Your task to perform on an android device: turn off smart reply in the gmail app Image 0: 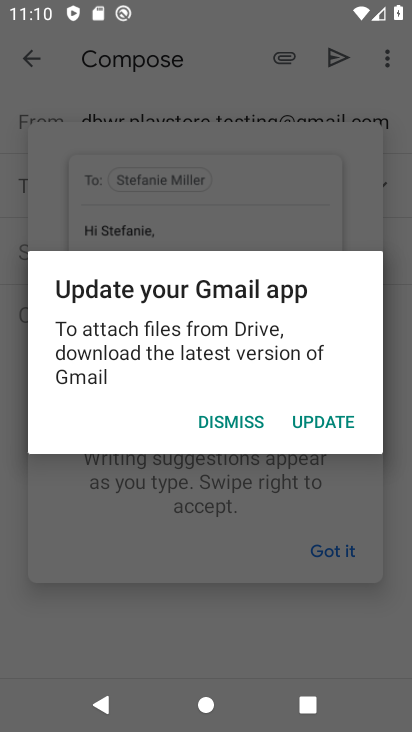
Step 0: press home button
Your task to perform on an android device: turn off smart reply in the gmail app Image 1: 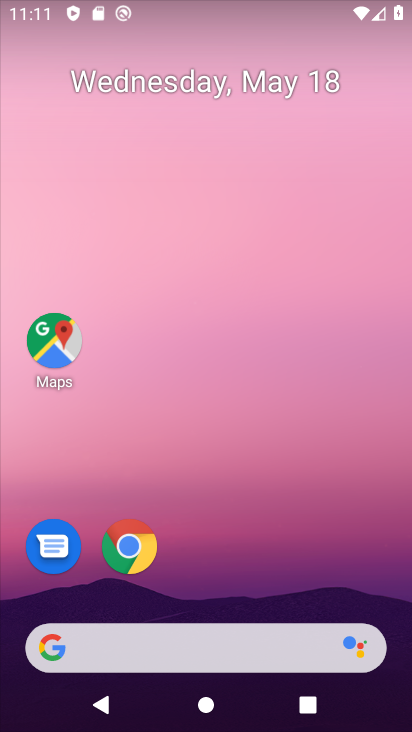
Step 1: drag from (411, 585) to (398, 74)
Your task to perform on an android device: turn off smart reply in the gmail app Image 2: 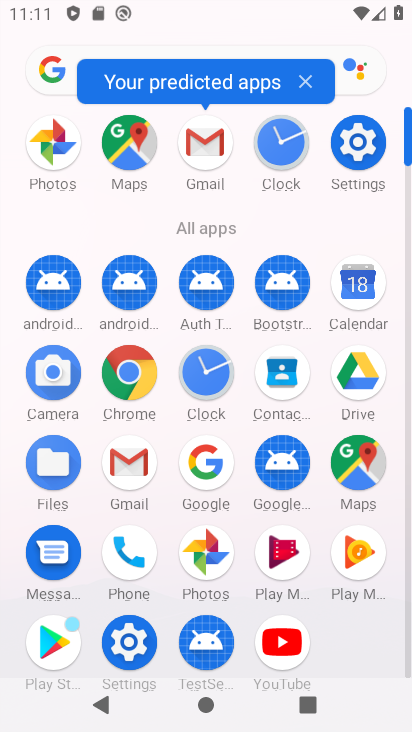
Step 2: click (133, 462)
Your task to perform on an android device: turn off smart reply in the gmail app Image 3: 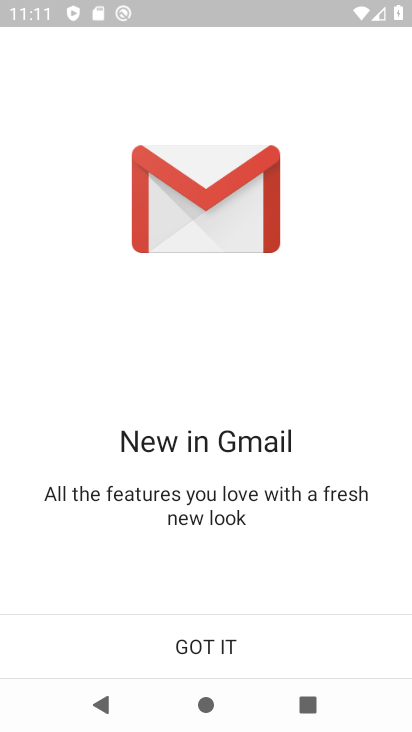
Step 3: click (183, 638)
Your task to perform on an android device: turn off smart reply in the gmail app Image 4: 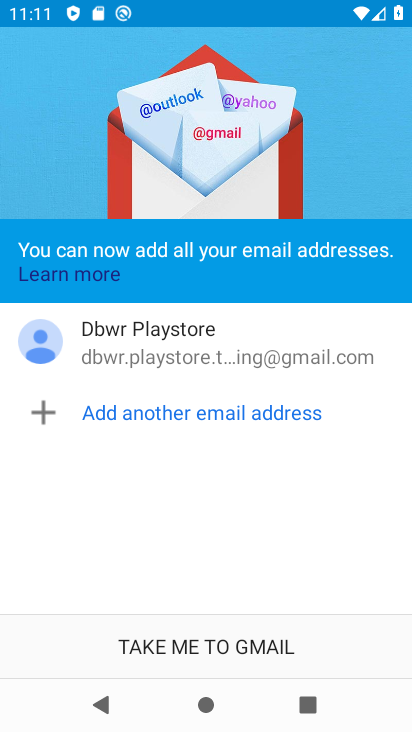
Step 4: click (181, 637)
Your task to perform on an android device: turn off smart reply in the gmail app Image 5: 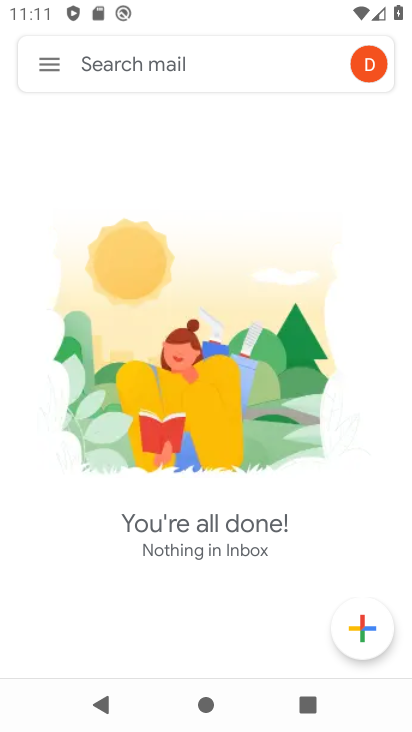
Step 5: click (46, 60)
Your task to perform on an android device: turn off smart reply in the gmail app Image 6: 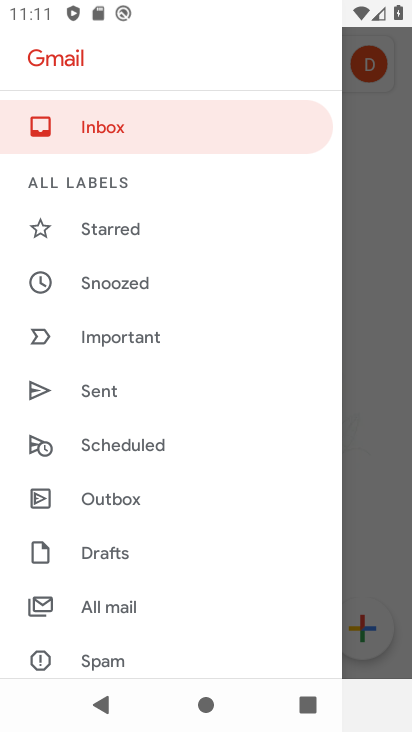
Step 6: drag from (232, 487) to (236, 380)
Your task to perform on an android device: turn off smart reply in the gmail app Image 7: 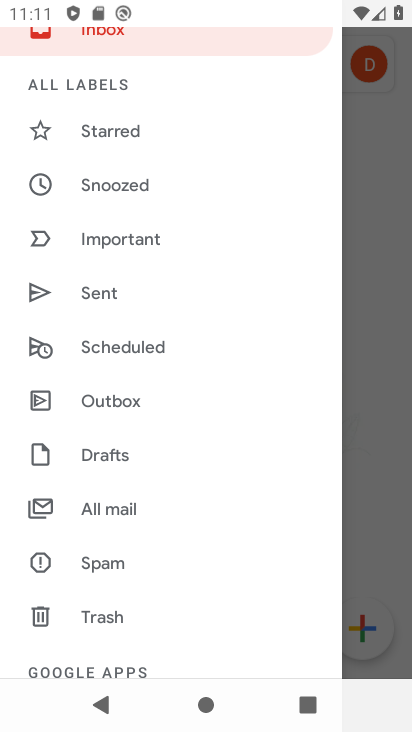
Step 7: drag from (226, 620) to (209, 343)
Your task to perform on an android device: turn off smart reply in the gmail app Image 8: 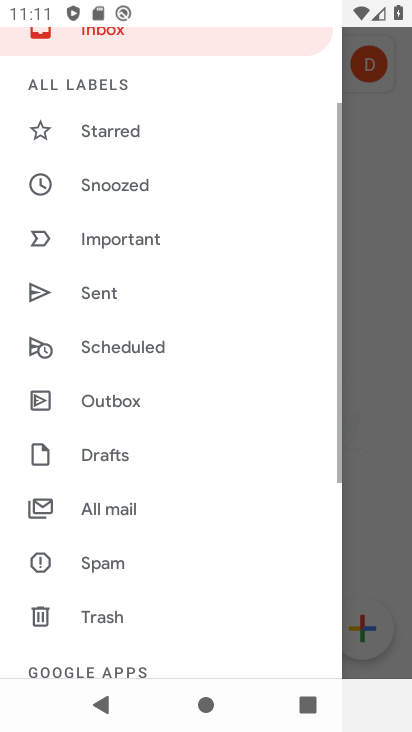
Step 8: drag from (223, 619) to (229, 307)
Your task to perform on an android device: turn off smart reply in the gmail app Image 9: 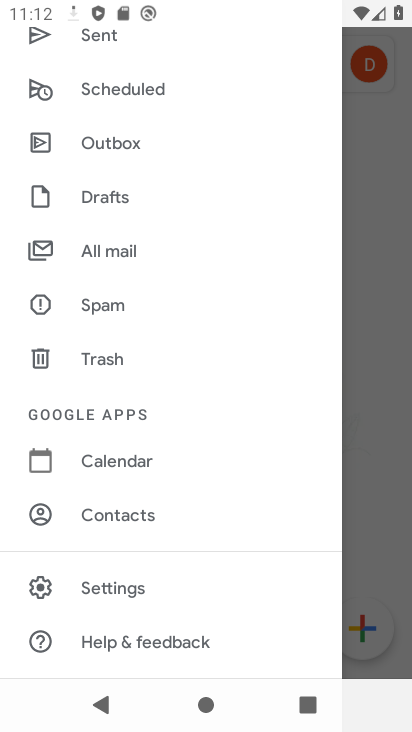
Step 9: click (97, 579)
Your task to perform on an android device: turn off smart reply in the gmail app Image 10: 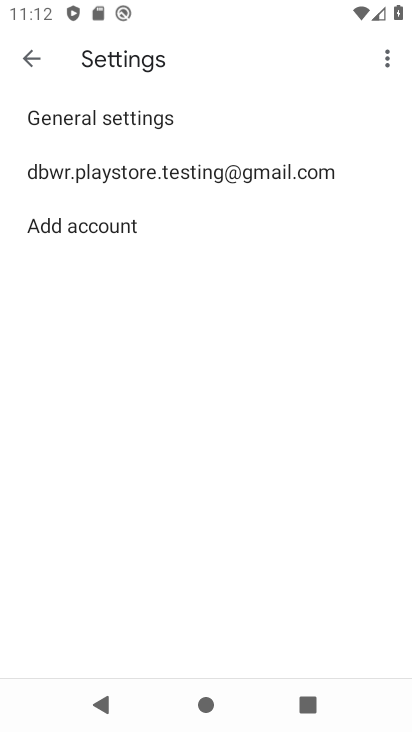
Step 10: click (91, 173)
Your task to perform on an android device: turn off smart reply in the gmail app Image 11: 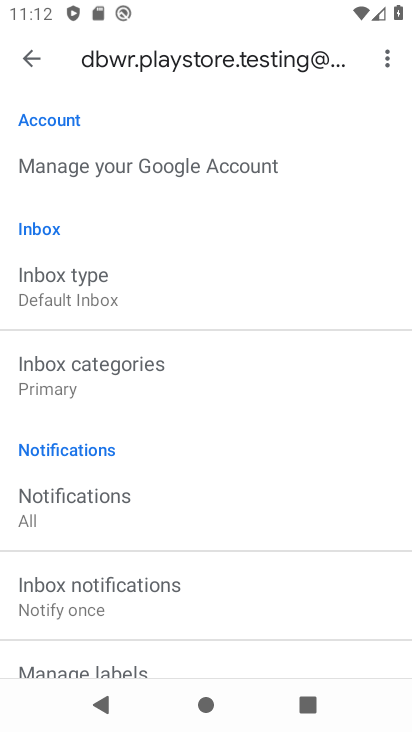
Step 11: drag from (266, 600) to (264, 331)
Your task to perform on an android device: turn off smart reply in the gmail app Image 12: 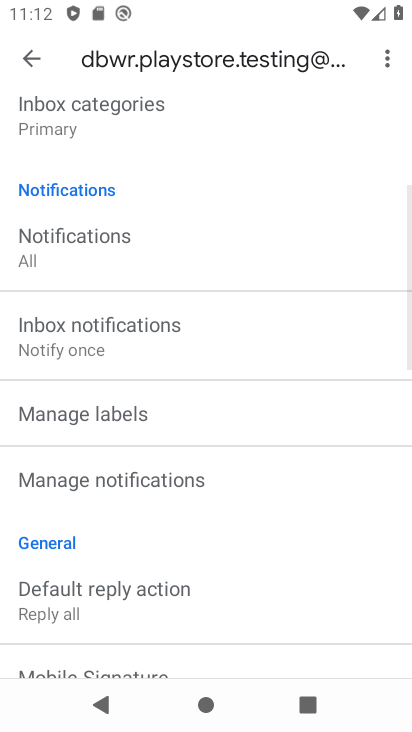
Step 12: drag from (251, 605) to (267, 476)
Your task to perform on an android device: turn off smart reply in the gmail app Image 13: 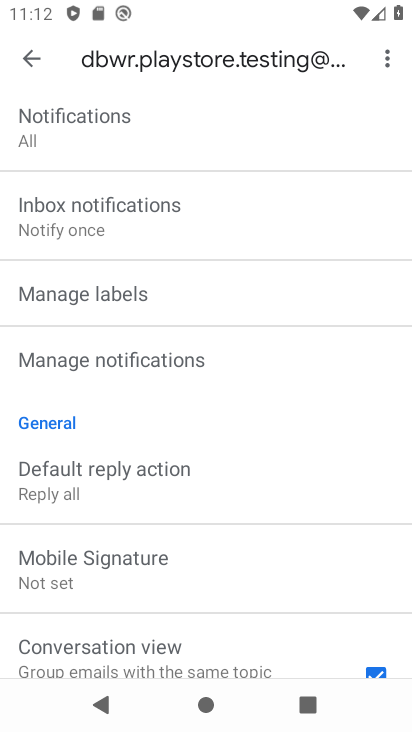
Step 13: drag from (183, 595) to (210, 354)
Your task to perform on an android device: turn off smart reply in the gmail app Image 14: 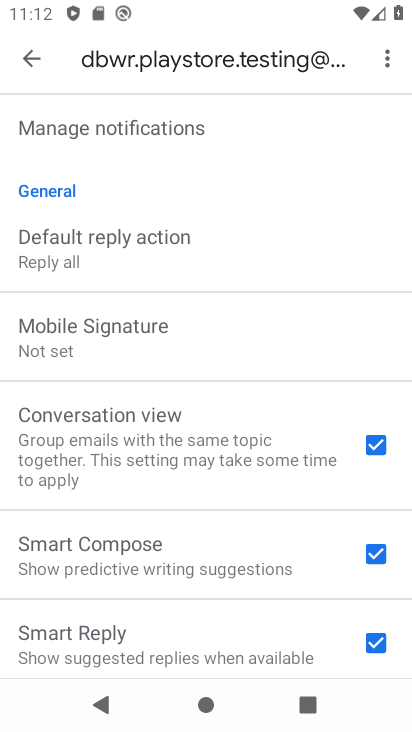
Step 14: drag from (210, 639) to (222, 417)
Your task to perform on an android device: turn off smart reply in the gmail app Image 15: 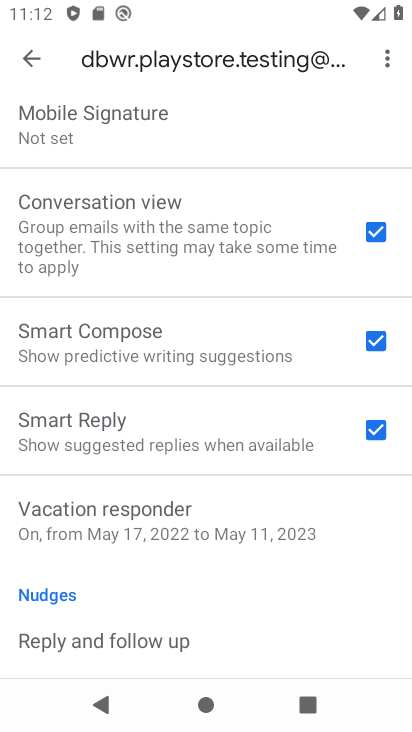
Step 15: click (380, 433)
Your task to perform on an android device: turn off smart reply in the gmail app Image 16: 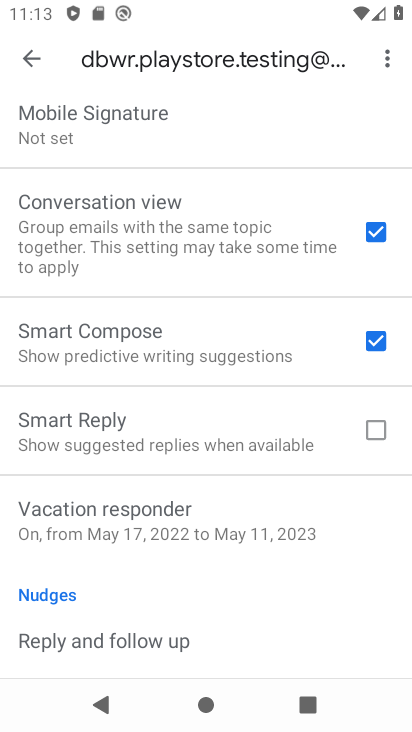
Step 16: task complete